Your task to perform on an android device: Open calendar and show me the first week of next month Image 0: 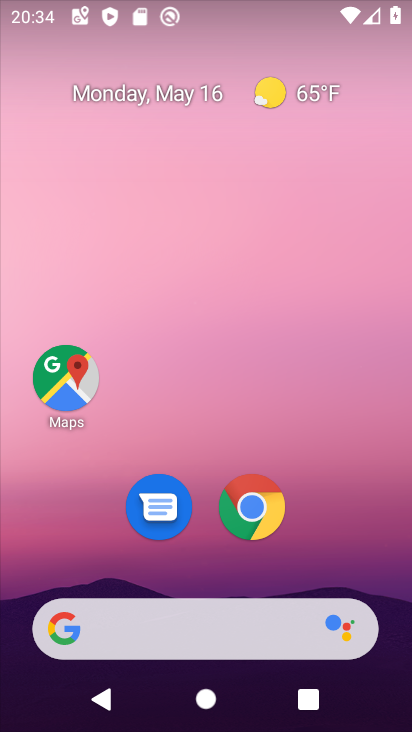
Step 0: drag from (208, 572) to (265, 26)
Your task to perform on an android device: Open calendar and show me the first week of next month Image 1: 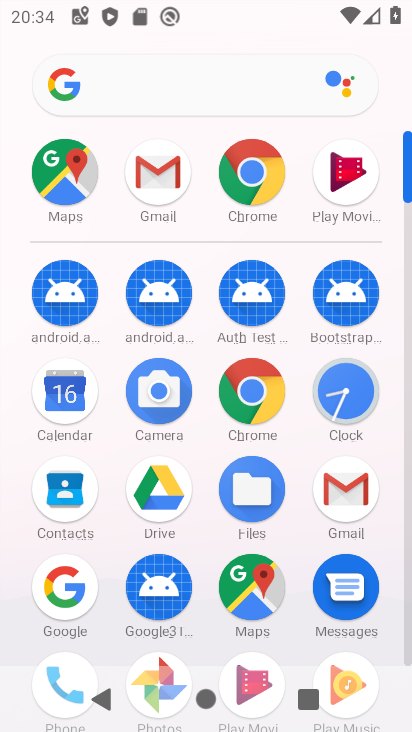
Step 1: click (58, 415)
Your task to perform on an android device: Open calendar and show me the first week of next month Image 2: 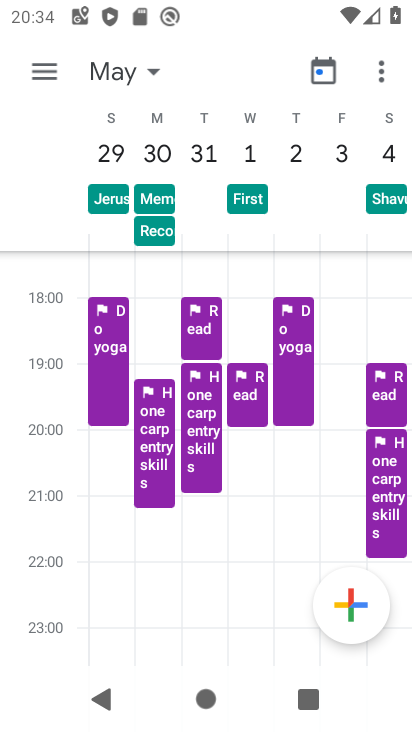
Step 2: press home button
Your task to perform on an android device: Open calendar and show me the first week of next month Image 3: 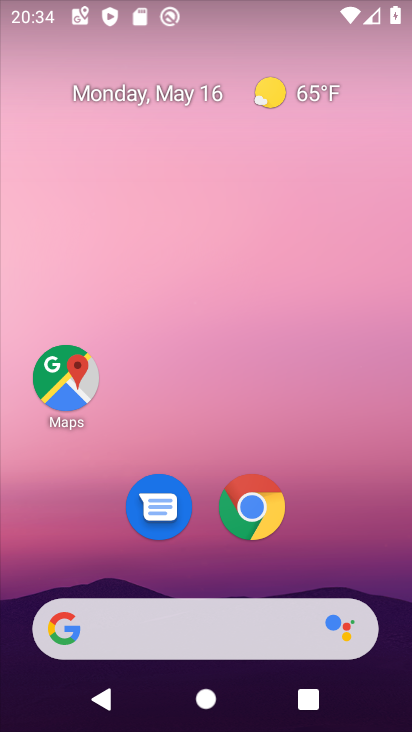
Step 3: drag from (210, 582) to (181, 0)
Your task to perform on an android device: Open calendar and show me the first week of next month Image 4: 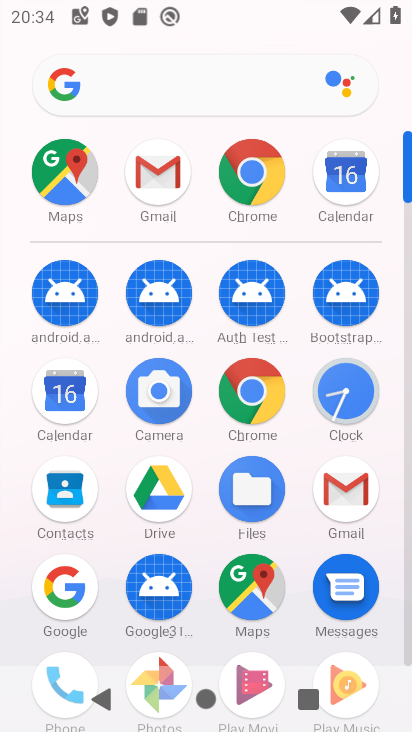
Step 4: click (52, 401)
Your task to perform on an android device: Open calendar and show me the first week of next month Image 5: 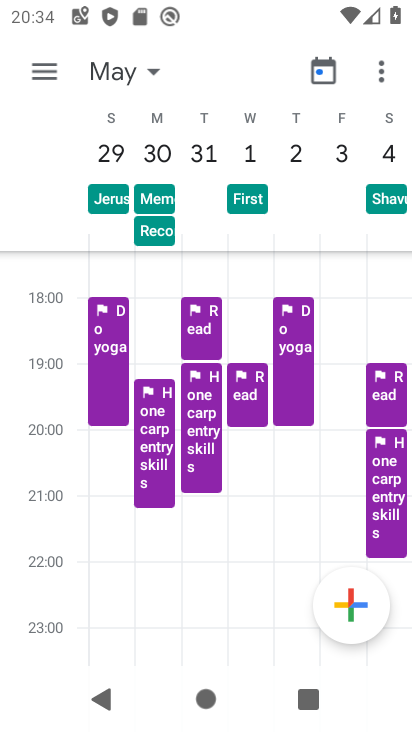
Step 5: task complete